Your task to perform on an android device: Install the Wikipedia app Image 0: 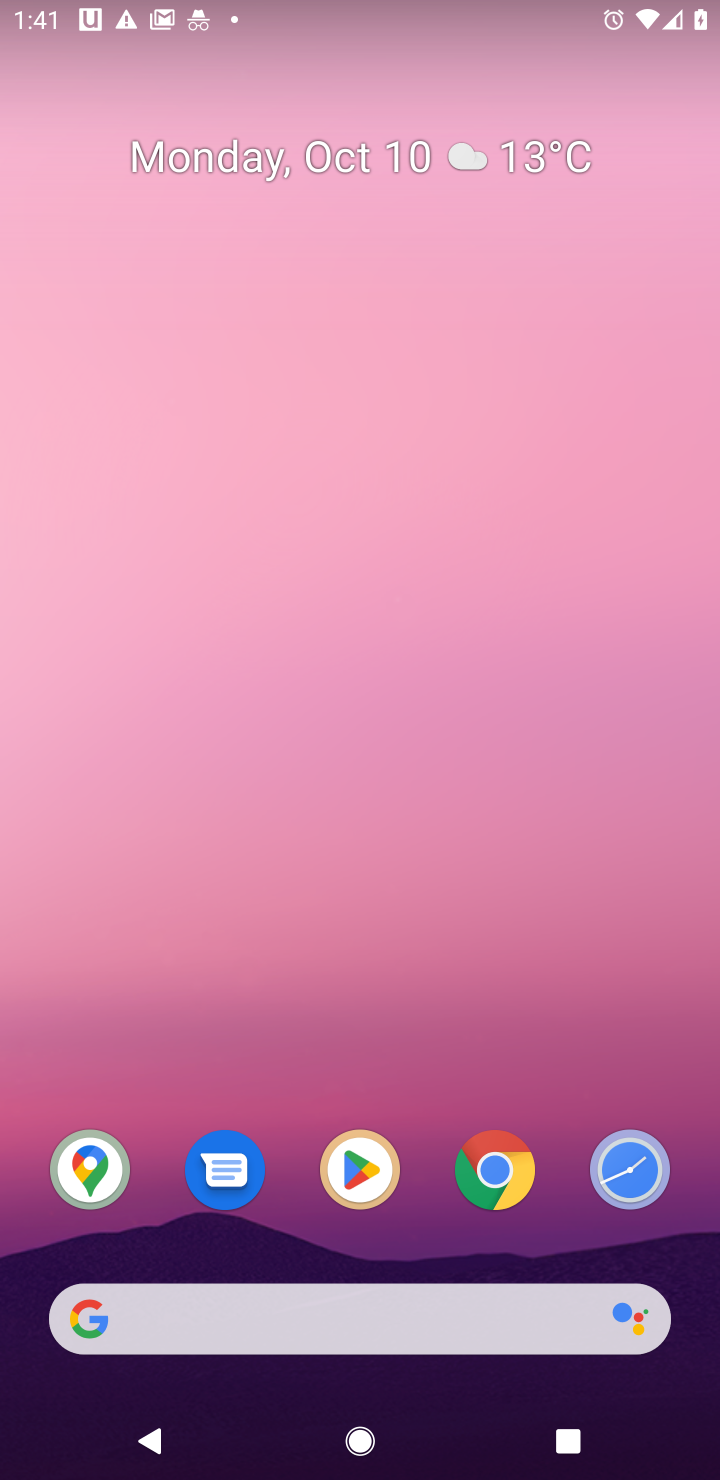
Step 0: click (356, 1164)
Your task to perform on an android device: Install the Wikipedia app Image 1: 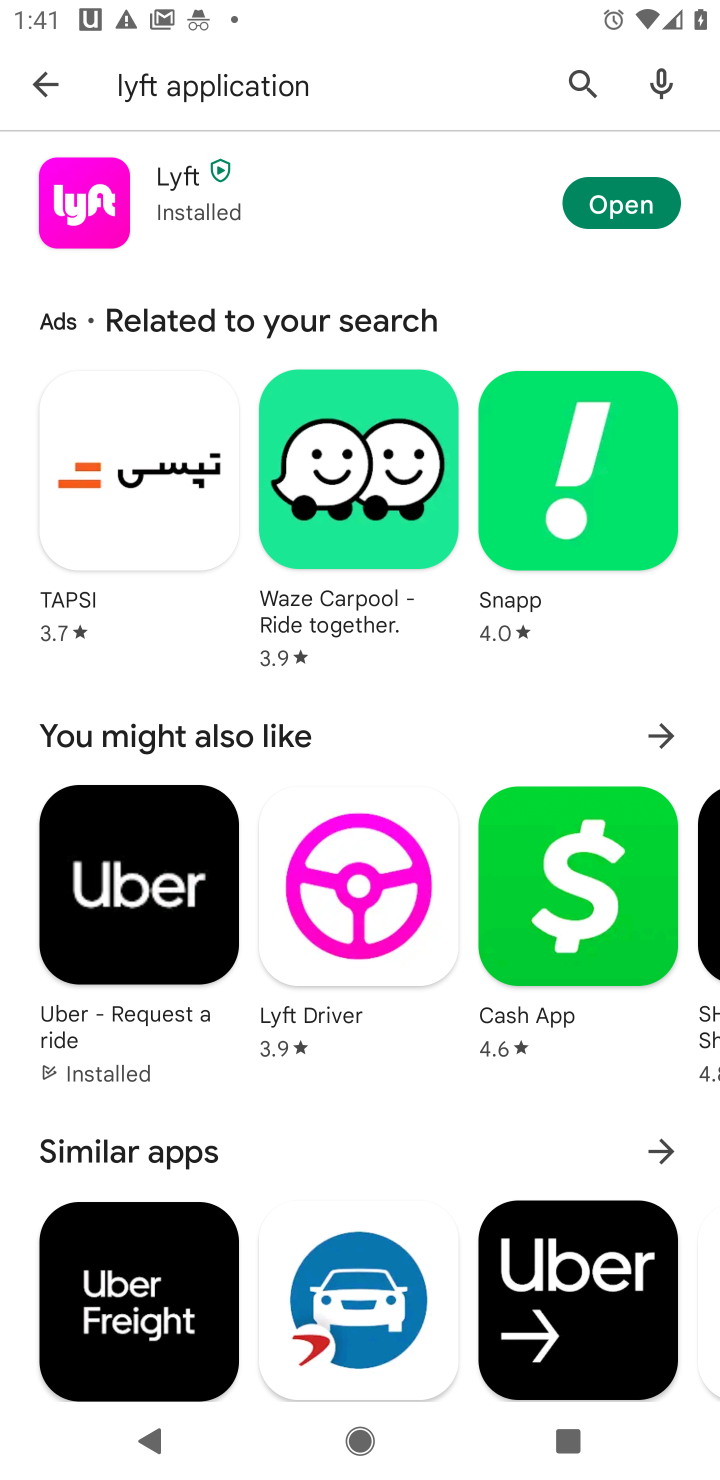
Step 1: click (580, 82)
Your task to perform on an android device: Install the Wikipedia app Image 2: 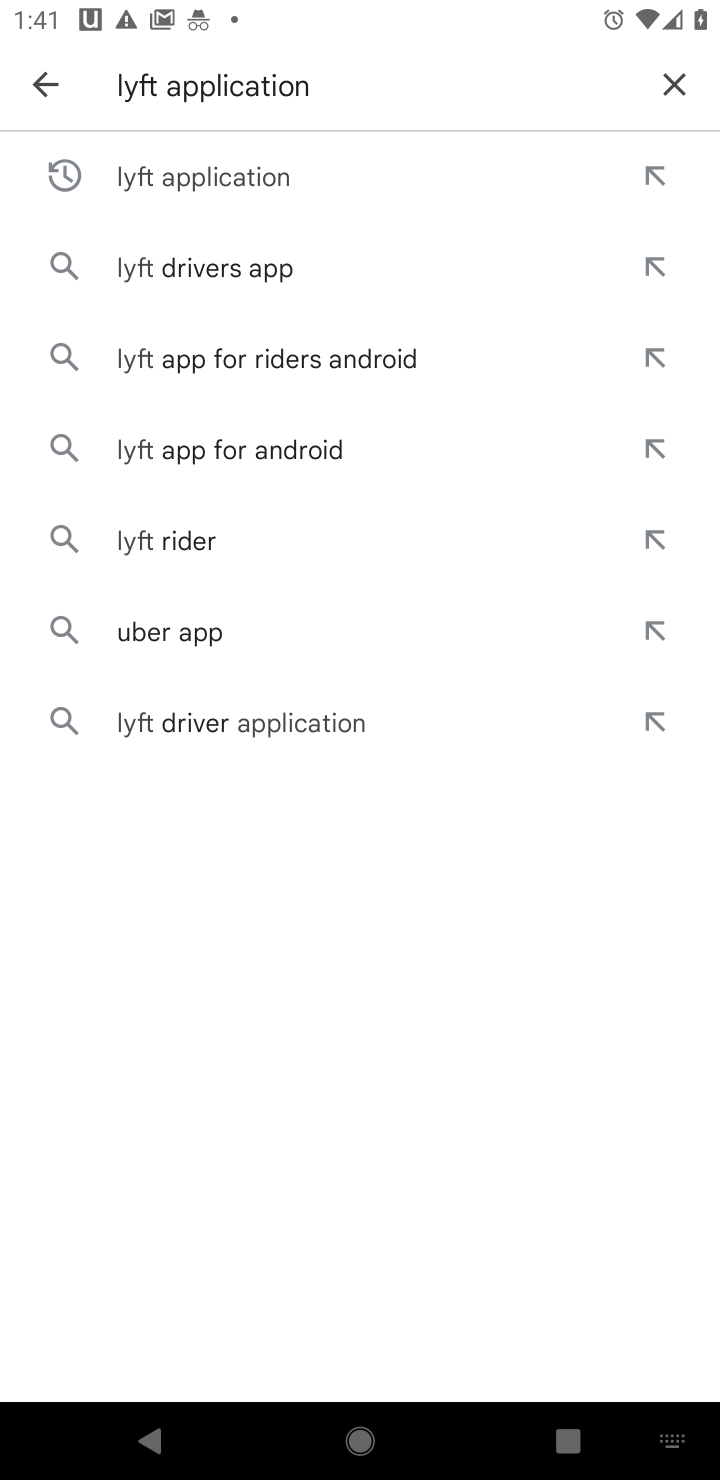
Step 2: click (674, 86)
Your task to perform on an android device: Install the Wikipedia app Image 3: 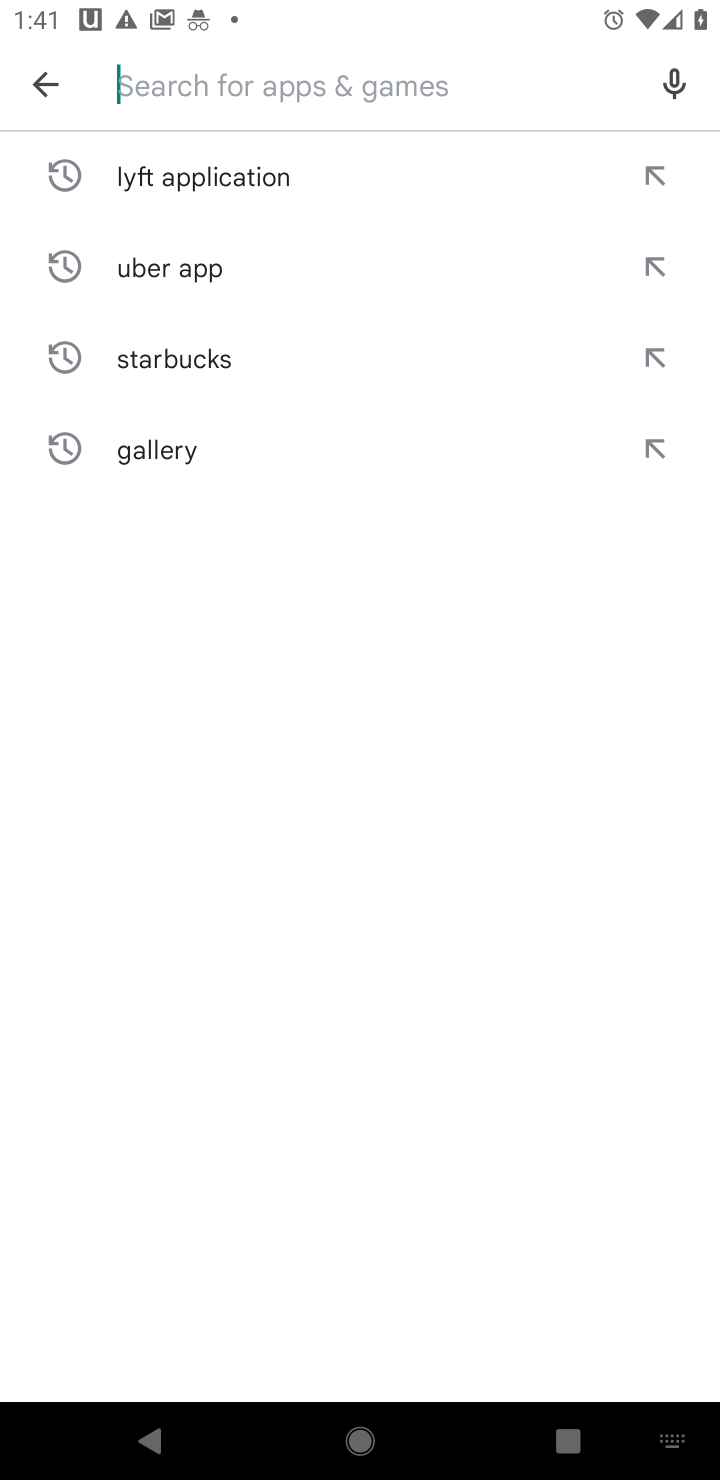
Step 3: type "wikipedia"
Your task to perform on an android device: Install the Wikipedia app Image 4: 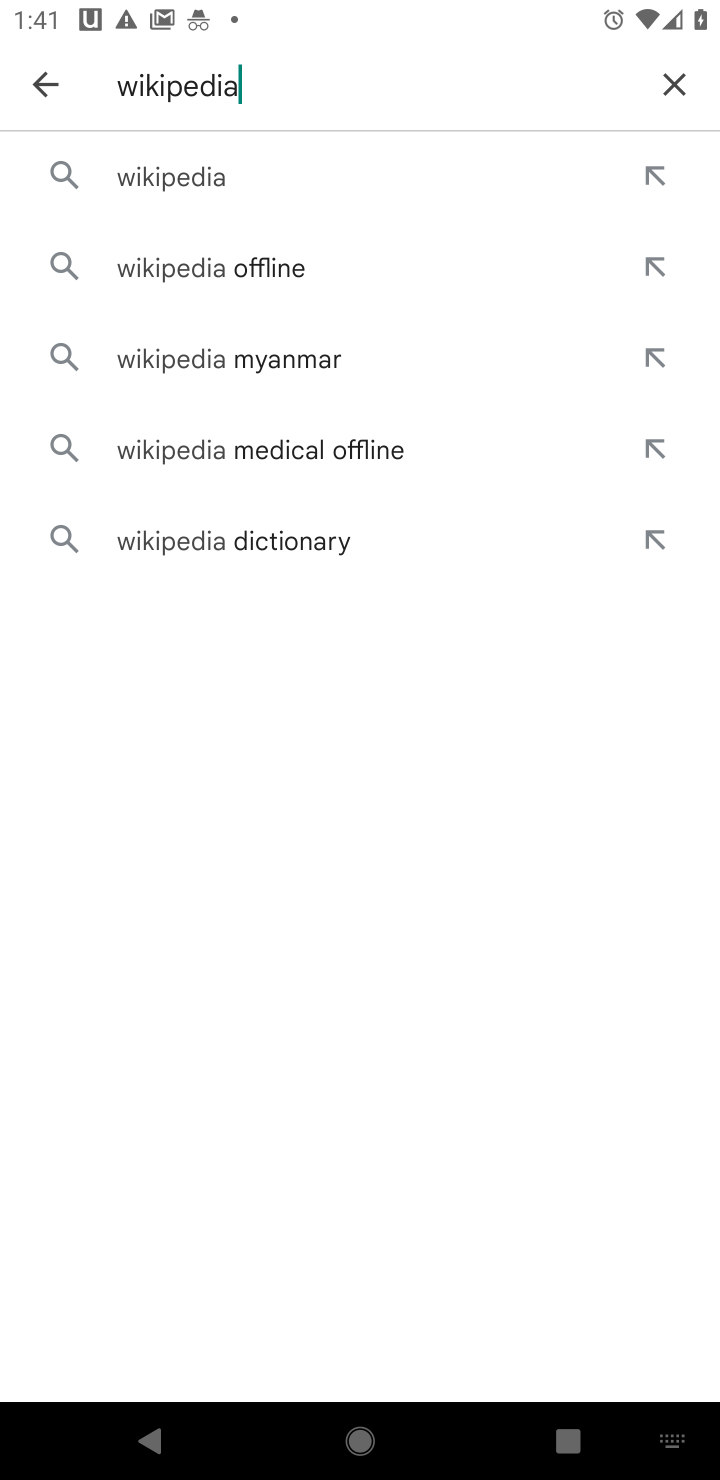
Step 4: click (189, 177)
Your task to perform on an android device: Install the Wikipedia app Image 5: 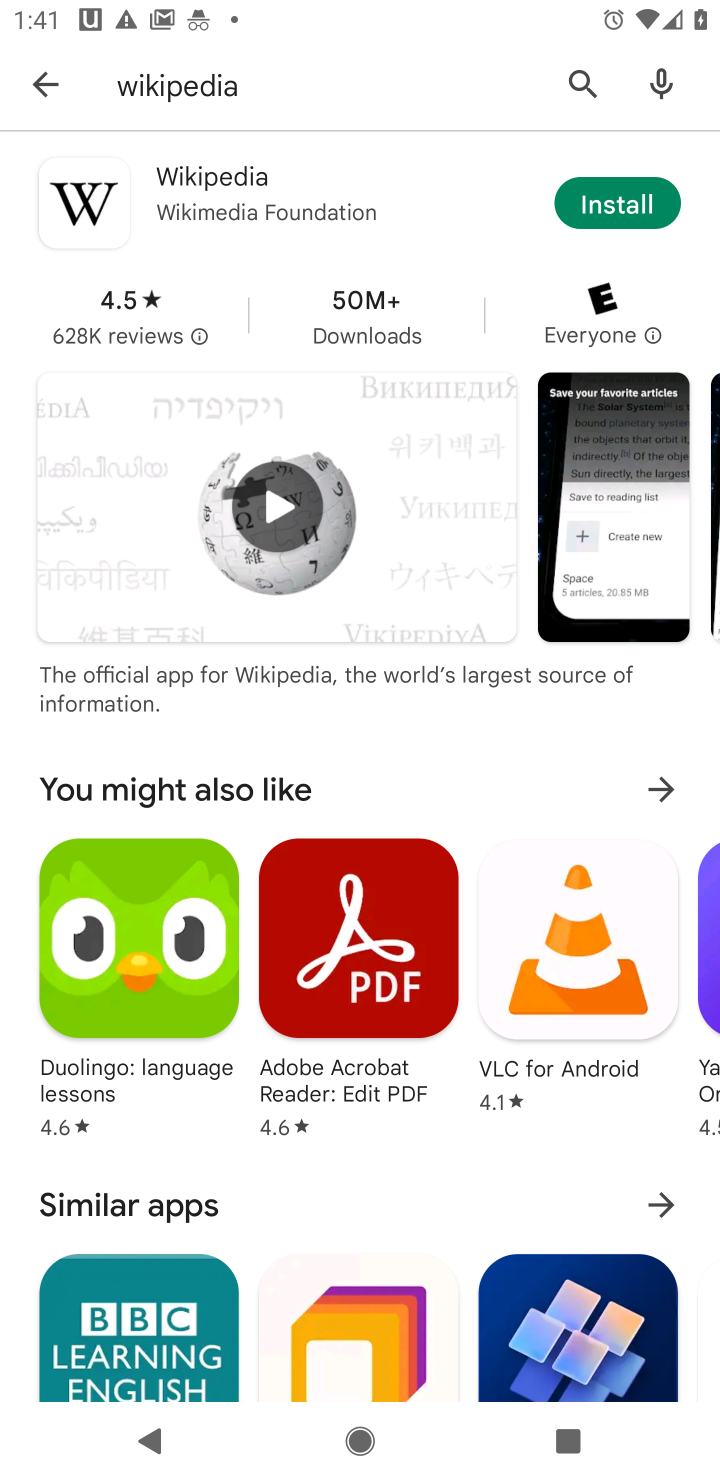
Step 5: click (597, 194)
Your task to perform on an android device: Install the Wikipedia app Image 6: 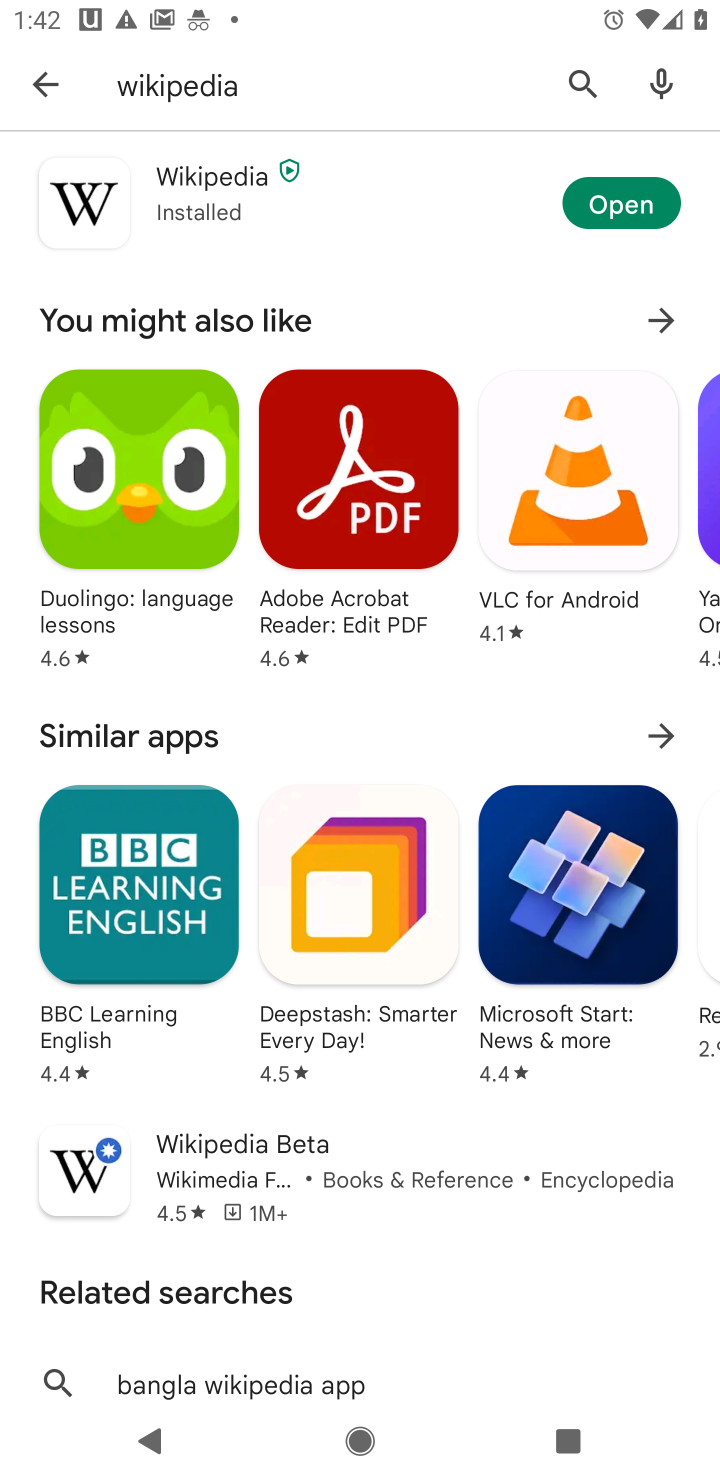
Step 6: click (606, 205)
Your task to perform on an android device: Install the Wikipedia app Image 7: 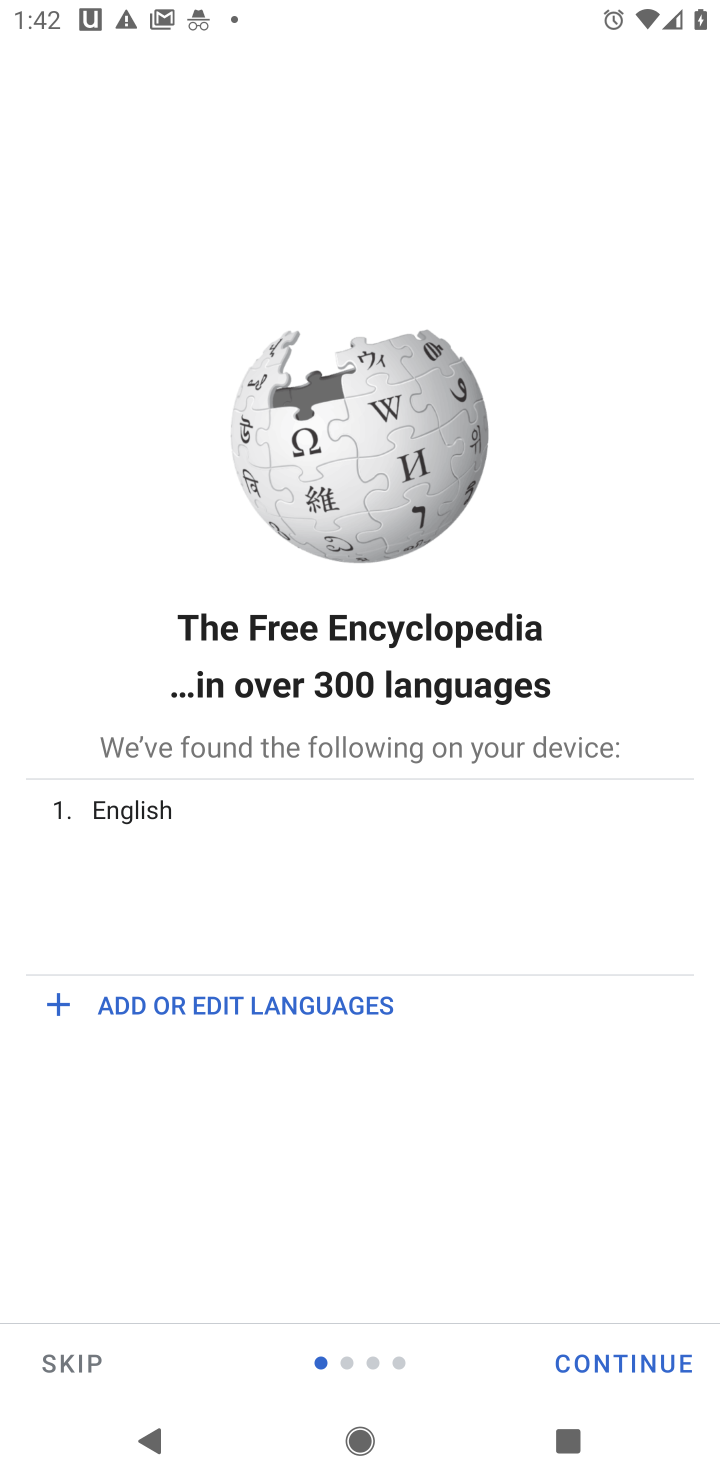
Step 7: task complete